Your task to perform on an android device: Check the weather Image 0: 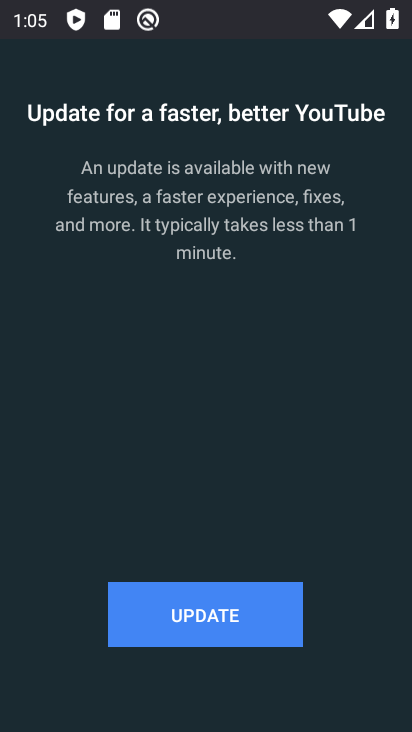
Step 0: press home button
Your task to perform on an android device: Check the weather Image 1: 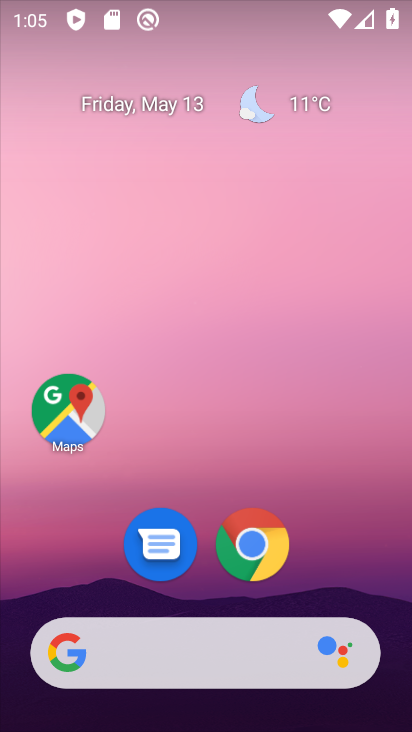
Step 1: click (244, 538)
Your task to perform on an android device: Check the weather Image 2: 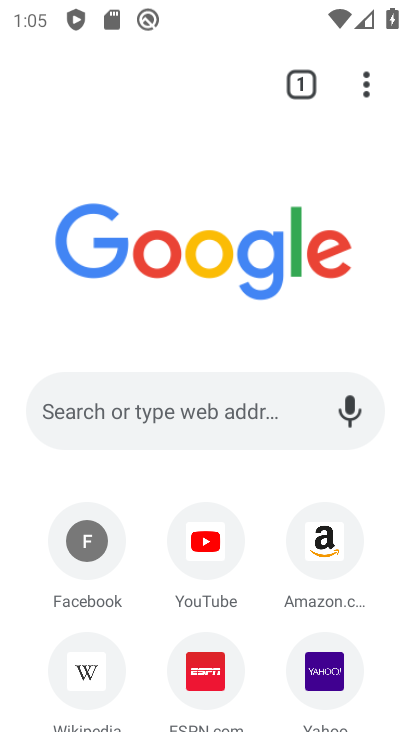
Step 2: click (93, 415)
Your task to perform on an android device: Check the weather Image 3: 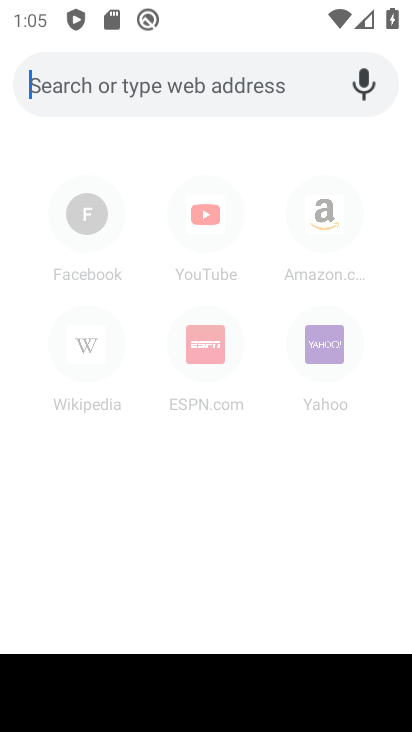
Step 3: type "weather"
Your task to perform on an android device: Check the weather Image 4: 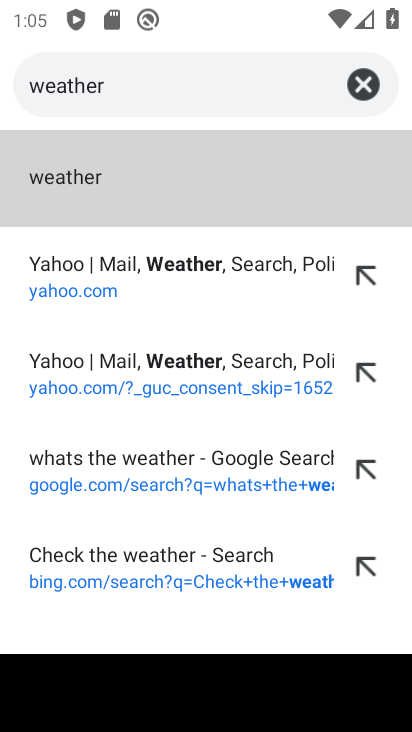
Step 4: click (111, 187)
Your task to perform on an android device: Check the weather Image 5: 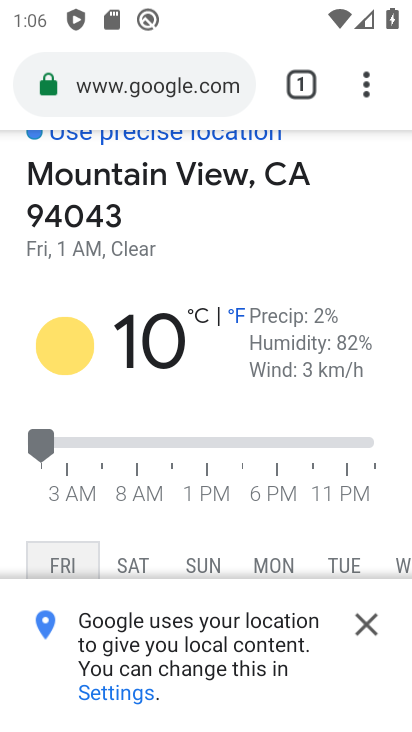
Step 5: task complete